Your task to perform on an android device: change notifications settings Image 0: 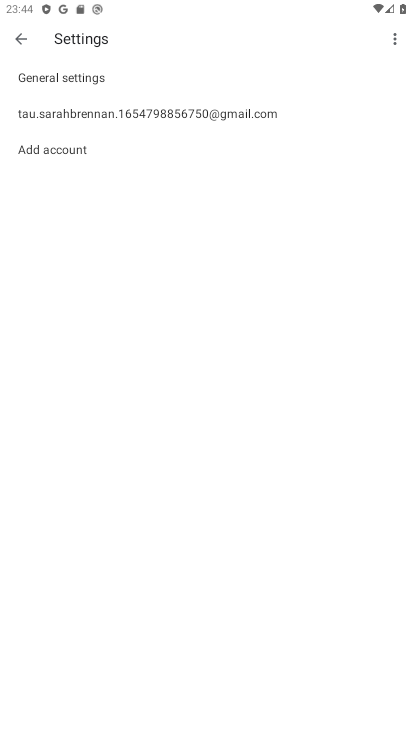
Step 0: press home button
Your task to perform on an android device: change notifications settings Image 1: 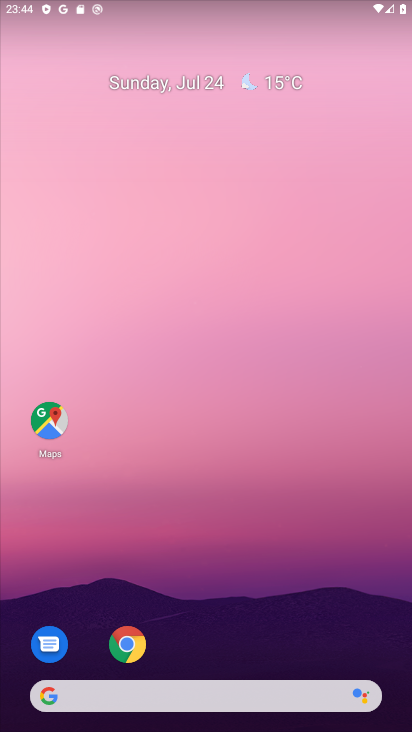
Step 1: click (203, 726)
Your task to perform on an android device: change notifications settings Image 2: 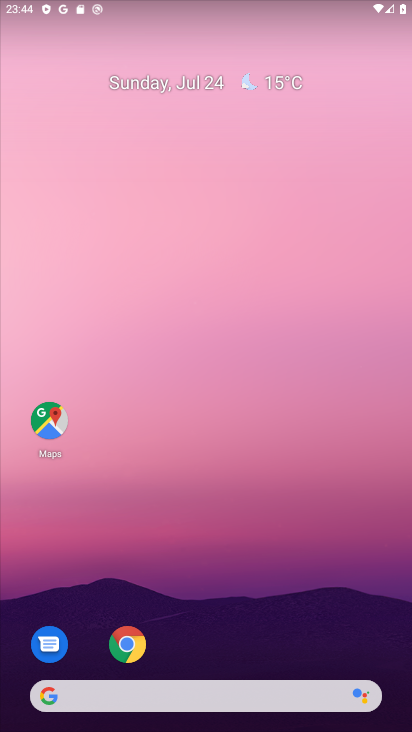
Step 2: drag from (202, 360) to (202, 293)
Your task to perform on an android device: change notifications settings Image 3: 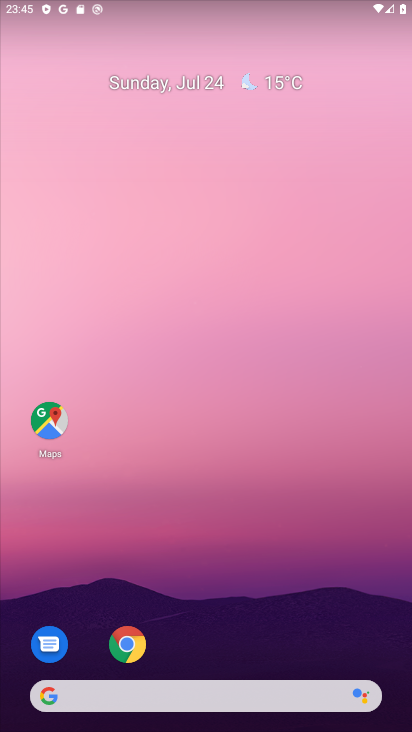
Step 3: drag from (229, 729) to (218, 81)
Your task to perform on an android device: change notifications settings Image 4: 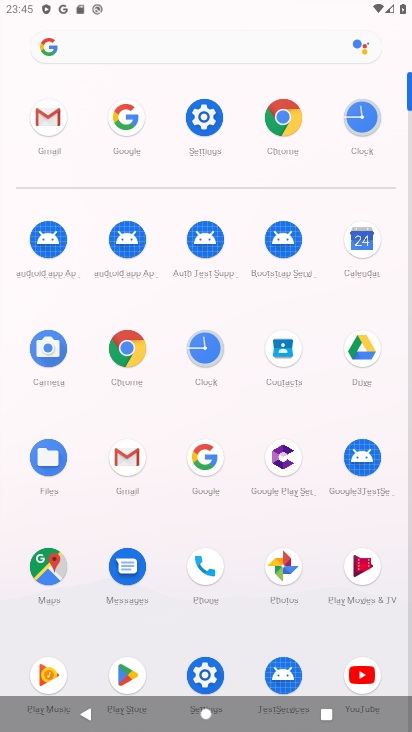
Step 4: click (215, 116)
Your task to perform on an android device: change notifications settings Image 5: 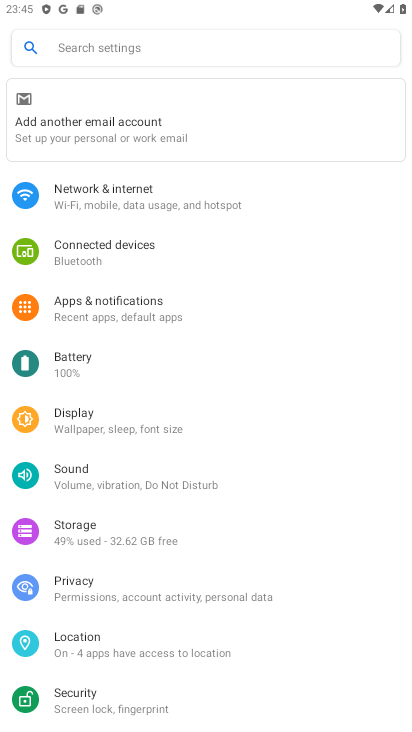
Step 5: click (118, 298)
Your task to perform on an android device: change notifications settings Image 6: 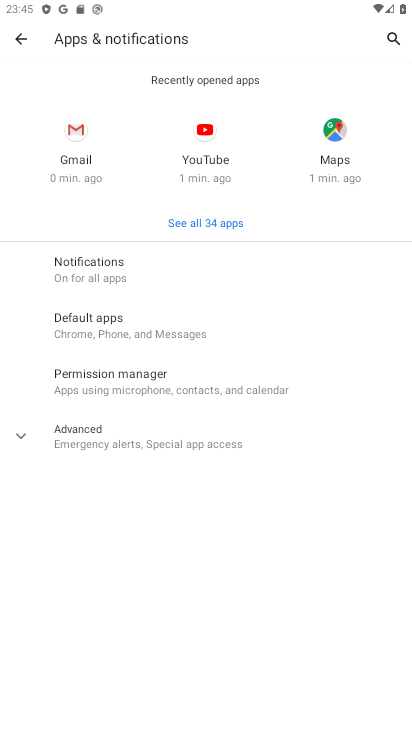
Step 6: click (82, 268)
Your task to perform on an android device: change notifications settings Image 7: 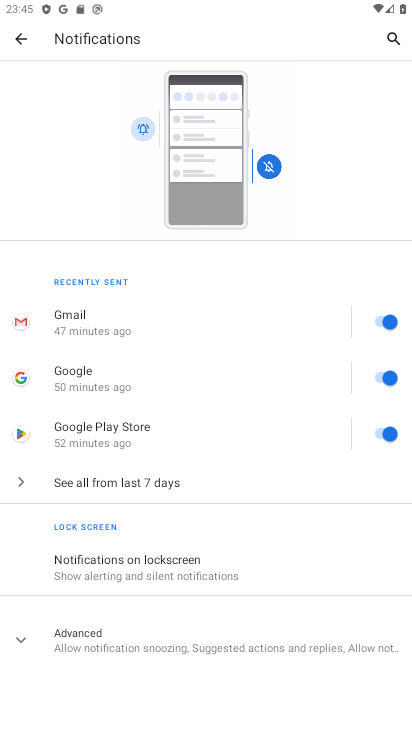
Step 7: click (182, 645)
Your task to perform on an android device: change notifications settings Image 8: 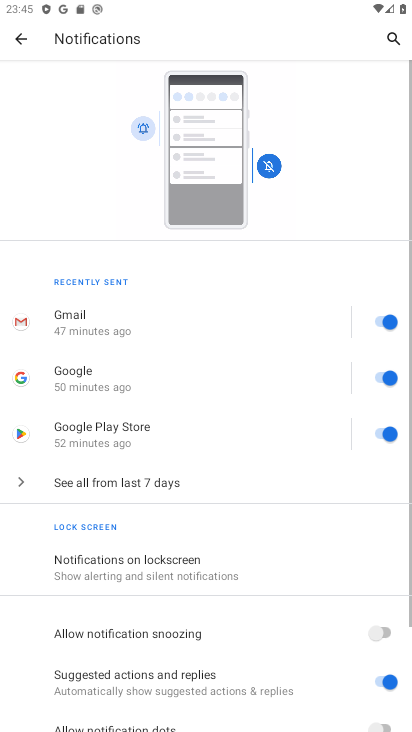
Step 8: click (391, 636)
Your task to perform on an android device: change notifications settings Image 9: 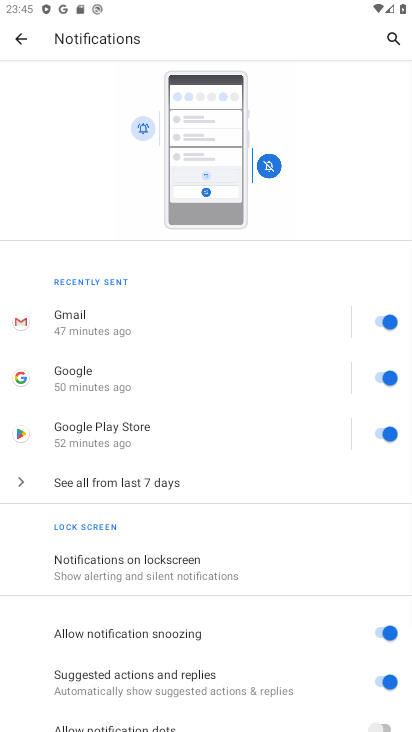
Step 9: task complete